Your task to perform on an android device: turn on improve location accuracy Image 0: 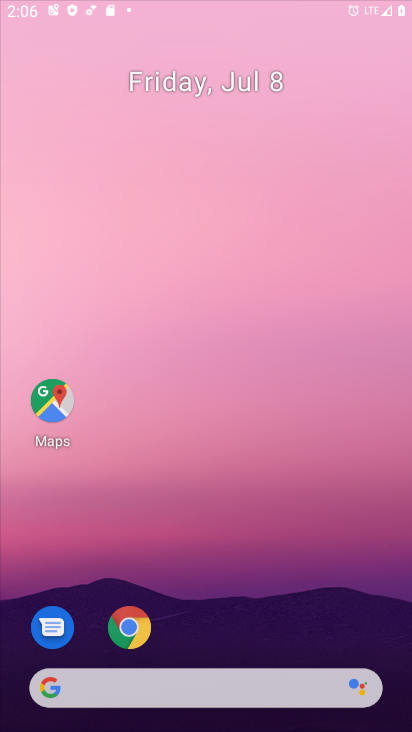
Step 0: press home button
Your task to perform on an android device: turn on improve location accuracy Image 1: 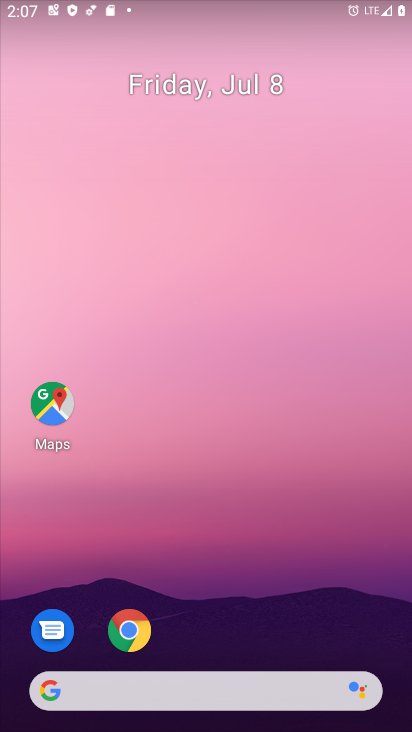
Step 1: drag from (224, 657) to (270, 37)
Your task to perform on an android device: turn on improve location accuracy Image 2: 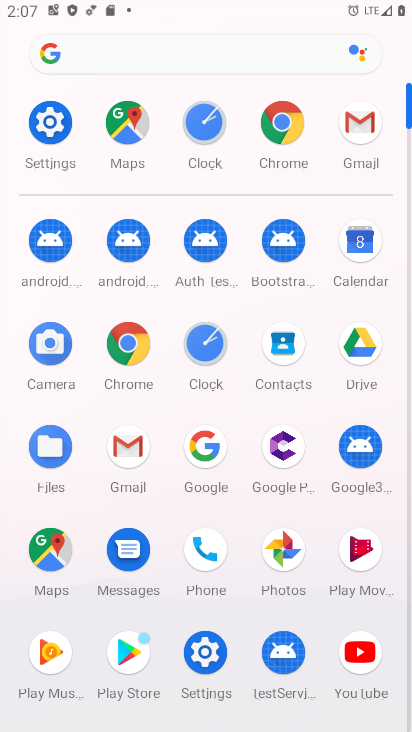
Step 2: click (48, 120)
Your task to perform on an android device: turn on improve location accuracy Image 3: 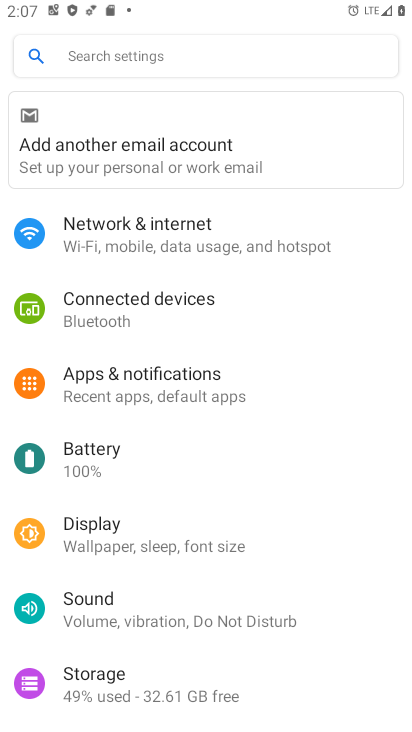
Step 3: drag from (179, 660) to (181, 124)
Your task to perform on an android device: turn on improve location accuracy Image 4: 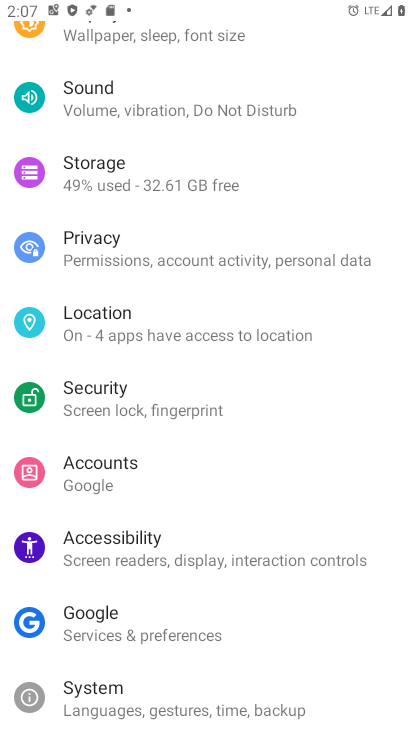
Step 4: click (141, 312)
Your task to perform on an android device: turn on improve location accuracy Image 5: 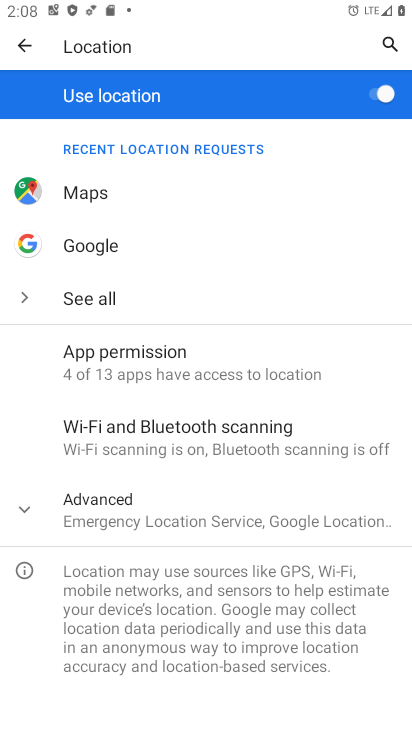
Step 5: click (17, 516)
Your task to perform on an android device: turn on improve location accuracy Image 6: 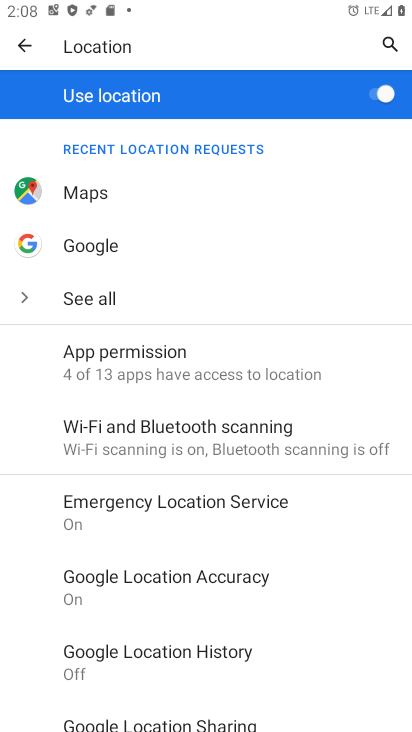
Step 6: click (168, 584)
Your task to perform on an android device: turn on improve location accuracy Image 7: 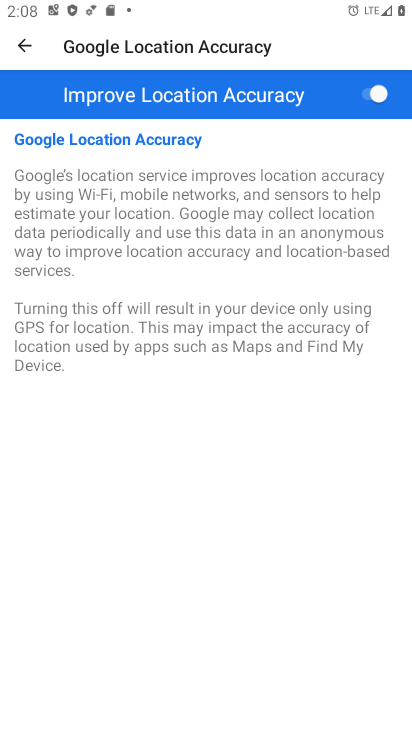
Step 7: task complete